Your task to perform on an android device: Do I have any events today? Image 0: 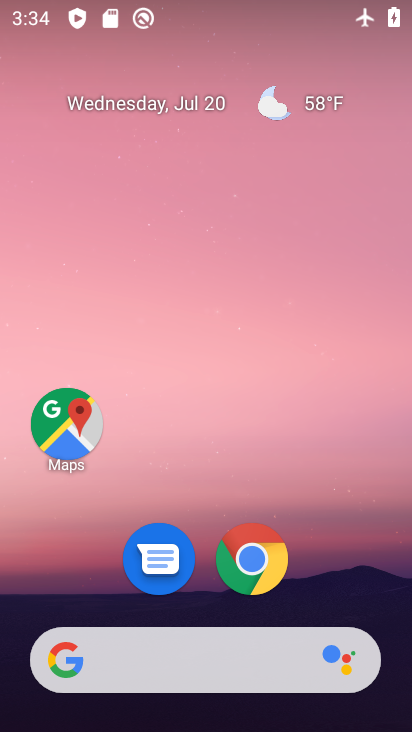
Step 0: drag from (70, 570) to (157, 3)
Your task to perform on an android device: Do I have any events today? Image 1: 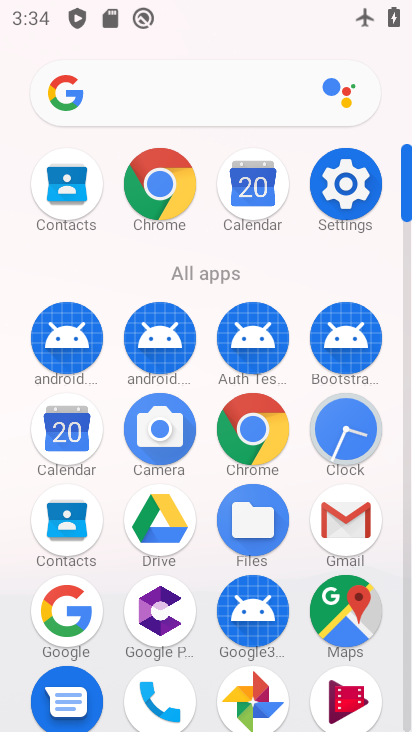
Step 1: click (55, 454)
Your task to perform on an android device: Do I have any events today? Image 2: 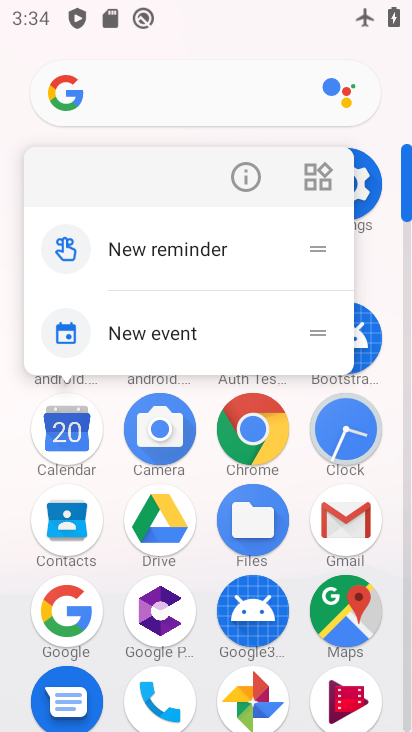
Step 2: click (66, 437)
Your task to perform on an android device: Do I have any events today? Image 3: 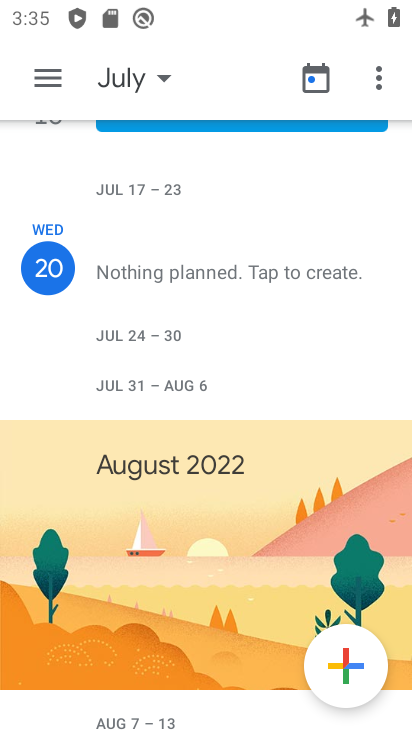
Step 3: task complete